Your task to perform on an android device: Open the stopwatch Image 0: 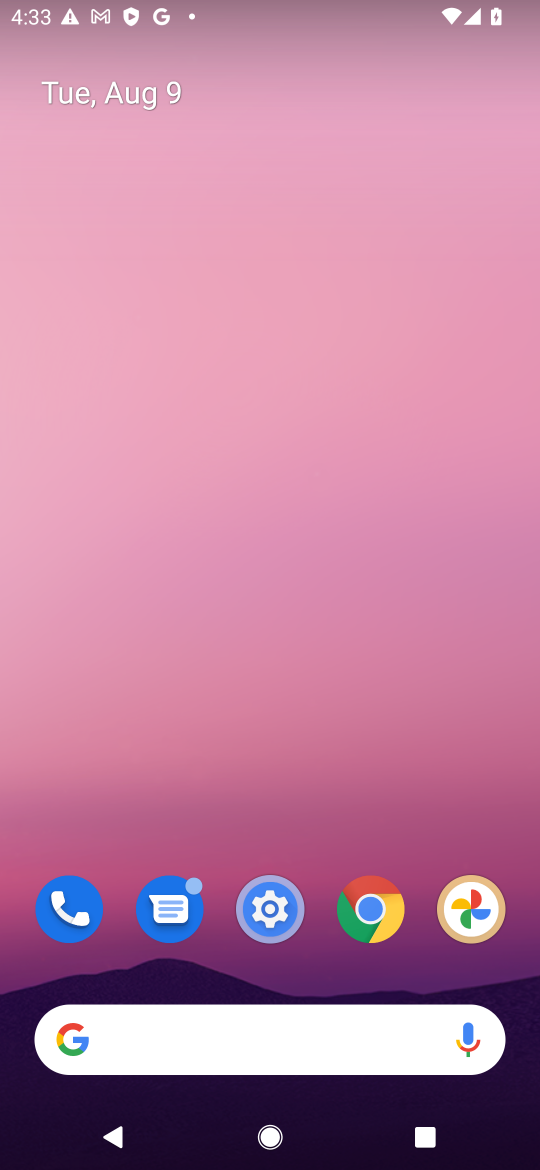
Step 0: click (280, 921)
Your task to perform on an android device: Open the stopwatch Image 1: 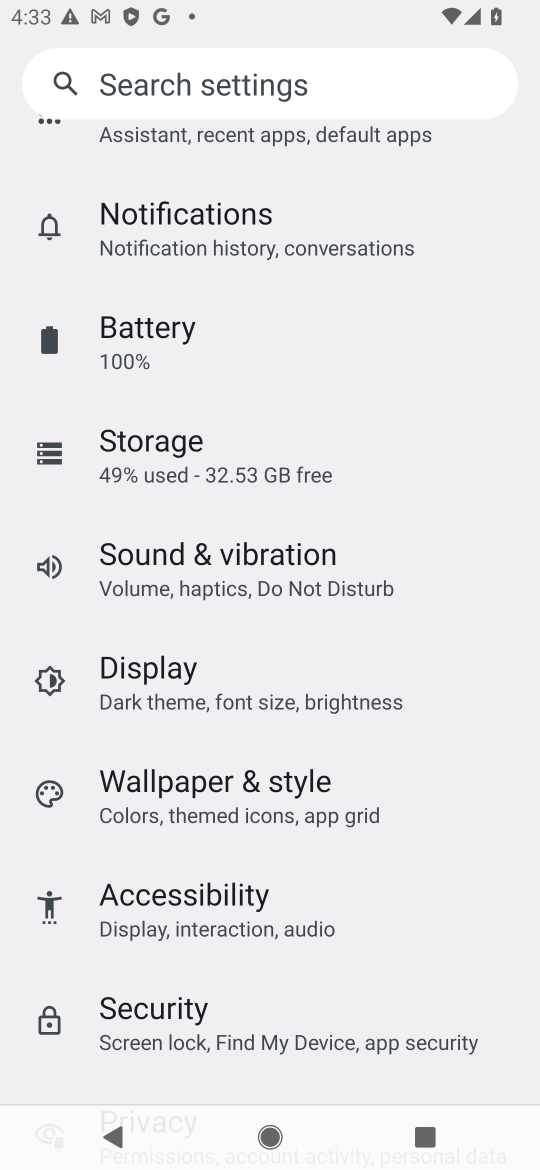
Step 1: press home button
Your task to perform on an android device: Open the stopwatch Image 2: 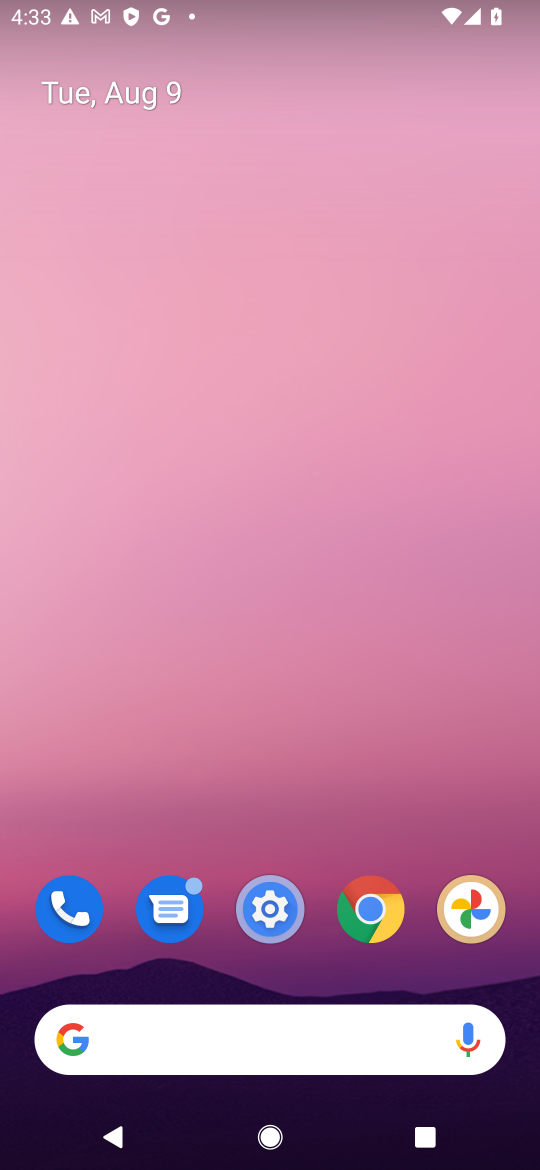
Step 2: drag from (438, 806) to (275, 88)
Your task to perform on an android device: Open the stopwatch Image 3: 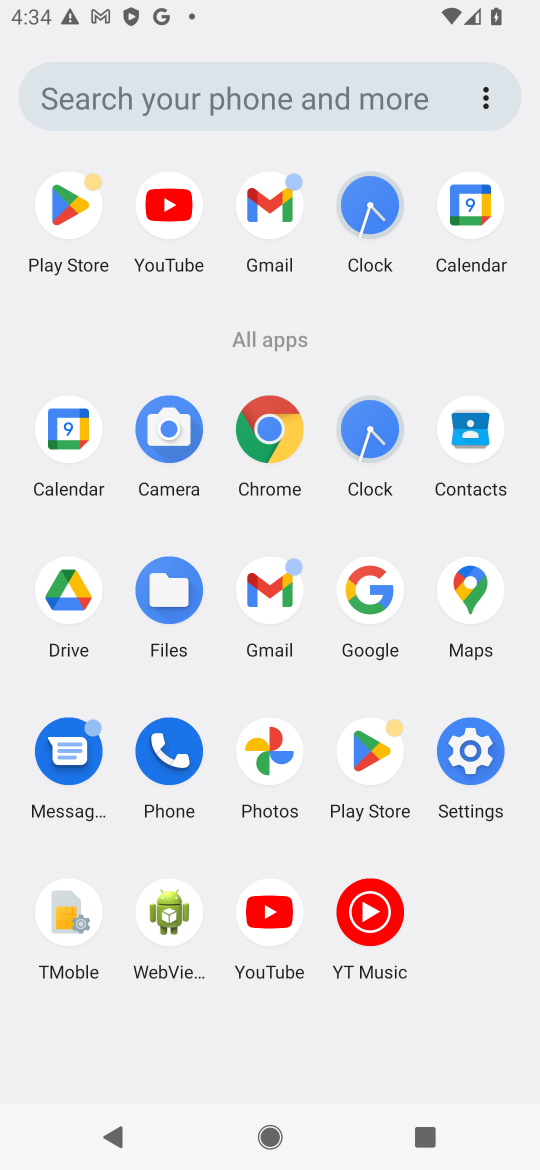
Step 3: click (377, 439)
Your task to perform on an android device: Open the stopwatch Image 4: 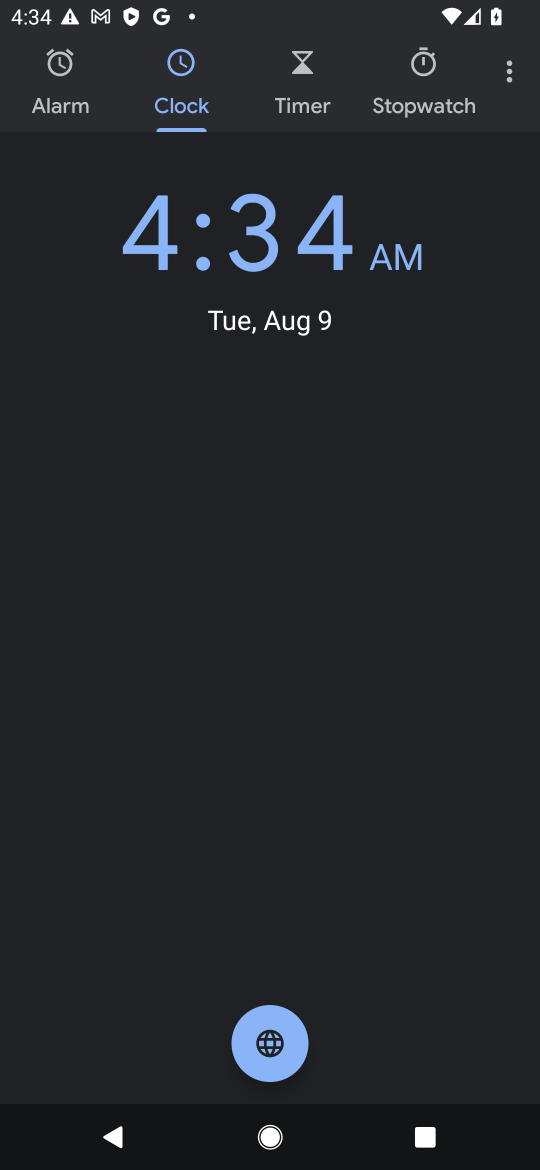
Step 4: click (419, 67)
Your task to perform on an android device: Open the stopwatch Image 5: 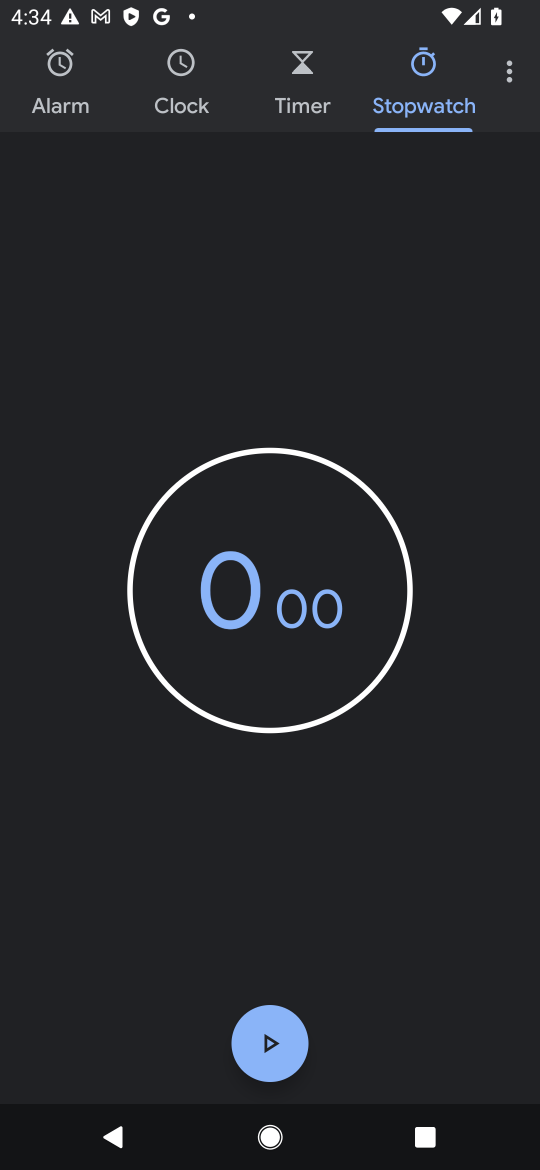
Step 5: task complete